Your task to perform on an android device: check data usage Image 0: 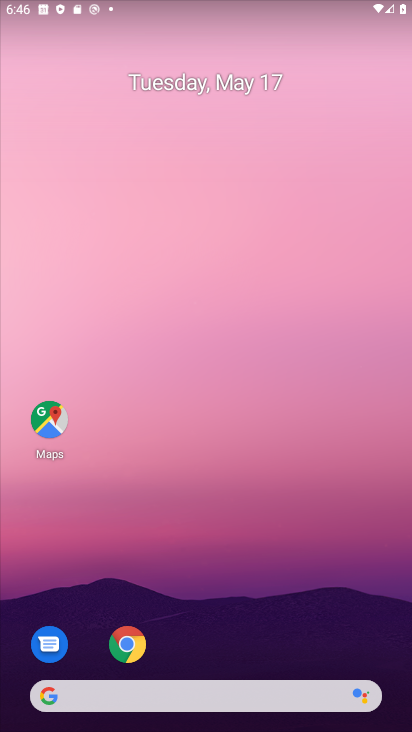
Step 0: drag from (372, 632) to (252, 69)
Your task to perform on an android device: check data usage Image 1: 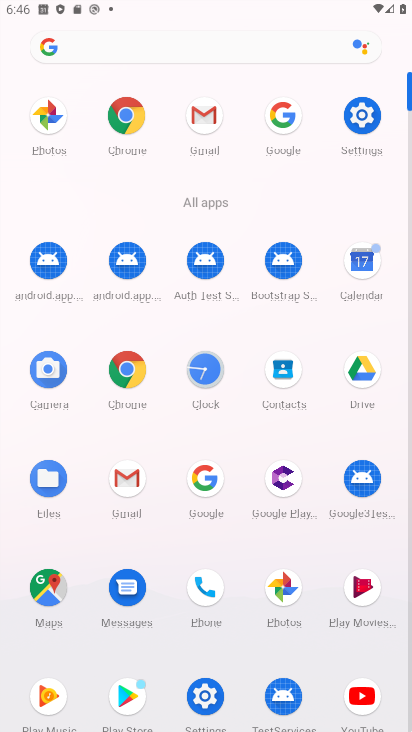
Step 1: click (371, 130)
Your task to perform on an android device: check data usage Image 2: 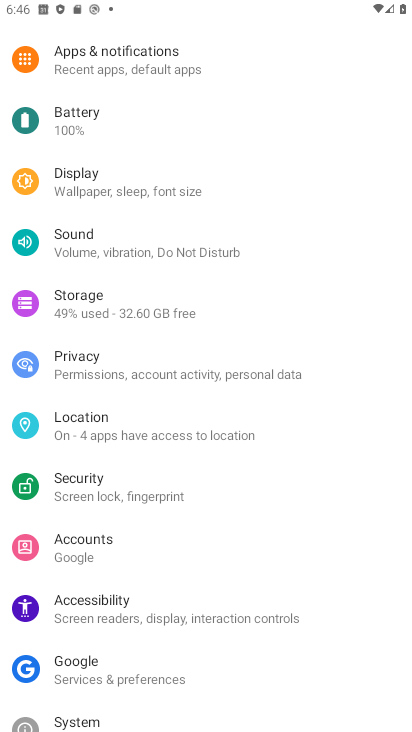
Step 2: drag from (169, 73) to (223, 546)
Your task to perform on an android device: check data usage Image 3: 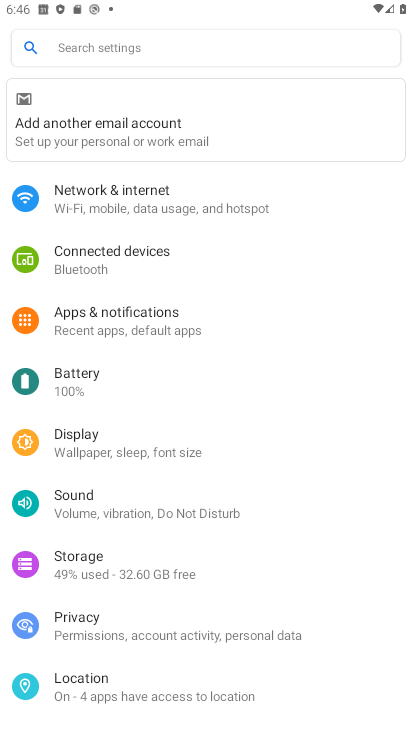
Step 3: click (166, 212)
Your task to perform on an android device: check data usage Image 4: 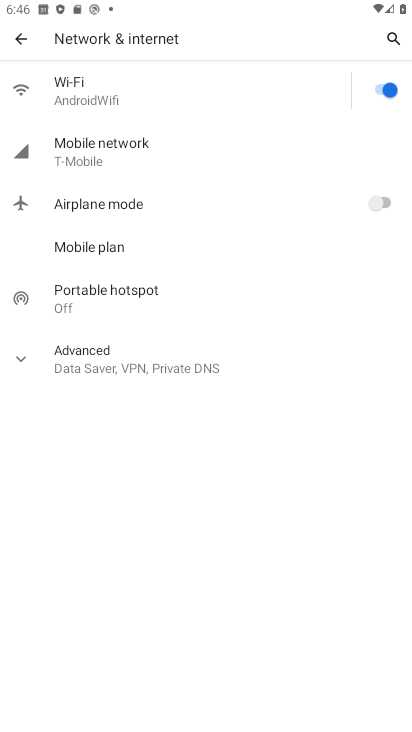
Step 4: click (122, 143)
Your task to perform on an android device: check data usage Image 5: 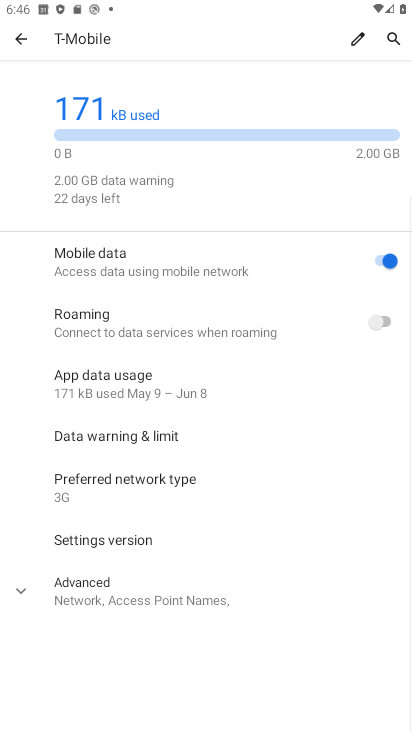
Step 5: click (132, 365)
Your task to perform on an android device: check data usage Image 6: 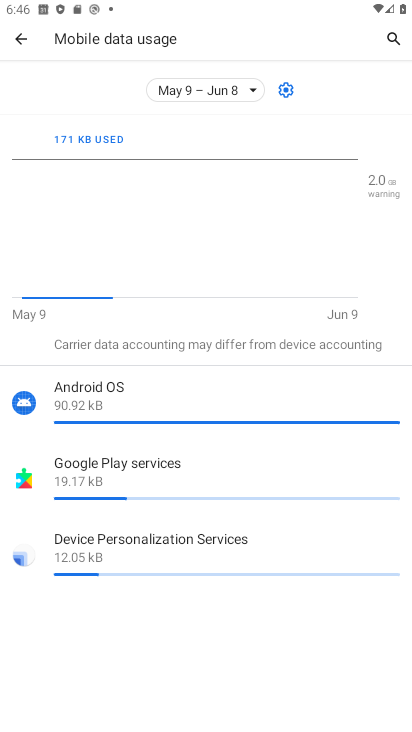
Step 6: task complete